Your task to perform on an android device: snooze an email in the gmail app Image 0: 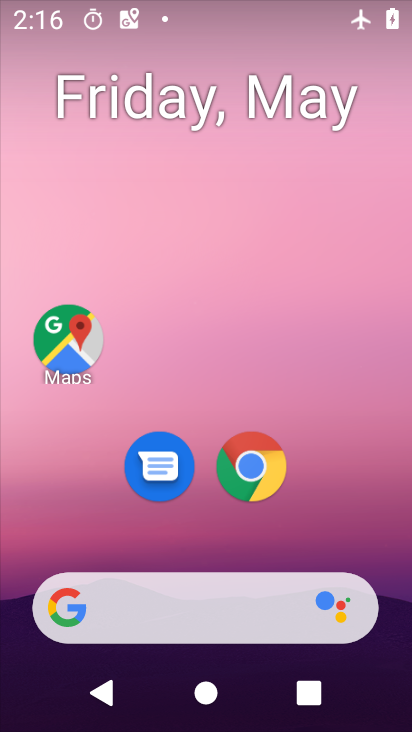
Step 0: drag from (361, 492) to (358, 111)
Your task to perform on an android device: snooze an email in the gmail app Image 1: 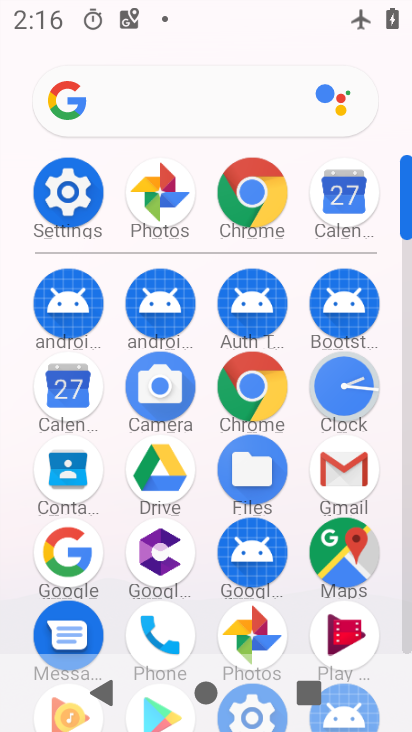
Step 1: click (353, 473)
Your task to perform on an android device: snooze an email in the gmail app Image 2: 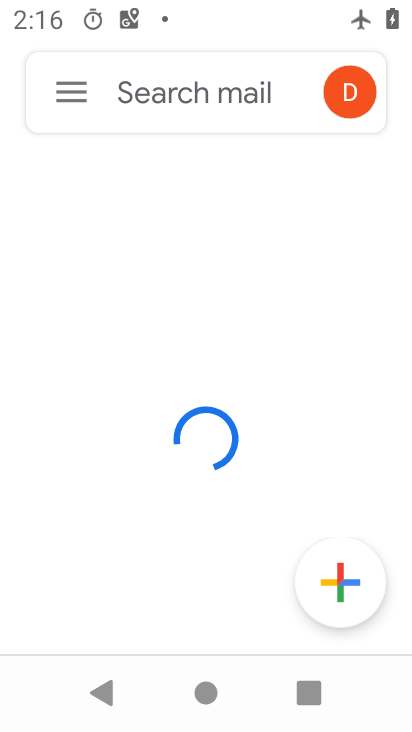
Step 2: click (77, 100)
Your task to perform on an android device: snooze an email in the gmail app Image 3: 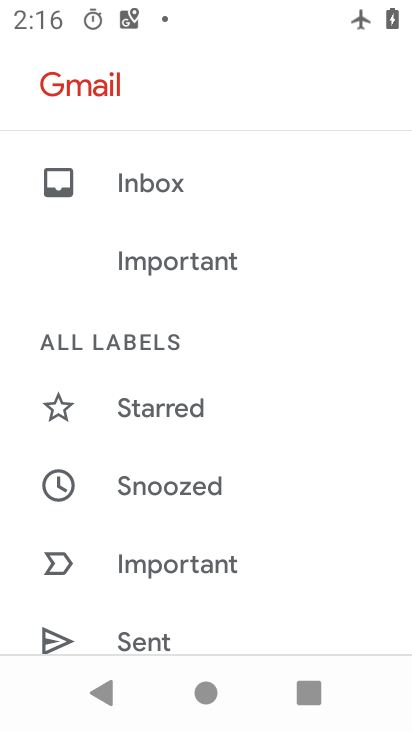
Step 3: click (172, 488)
Your task to perform on an android device: snooze an email in the gmail app Image 4: 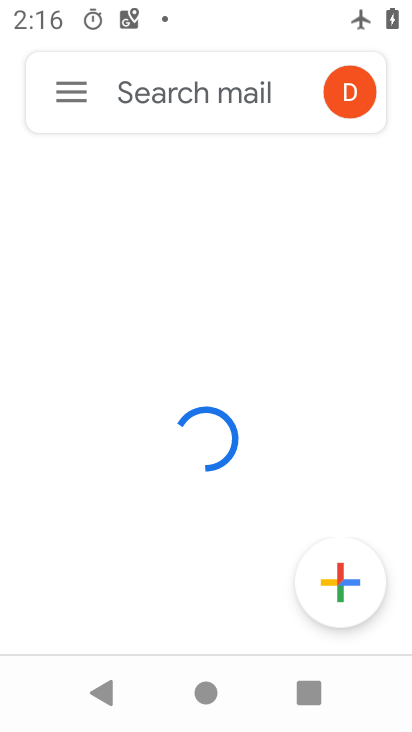
Step 4: task complete